Your task to perform on an android device: Go to display settings Image 0: 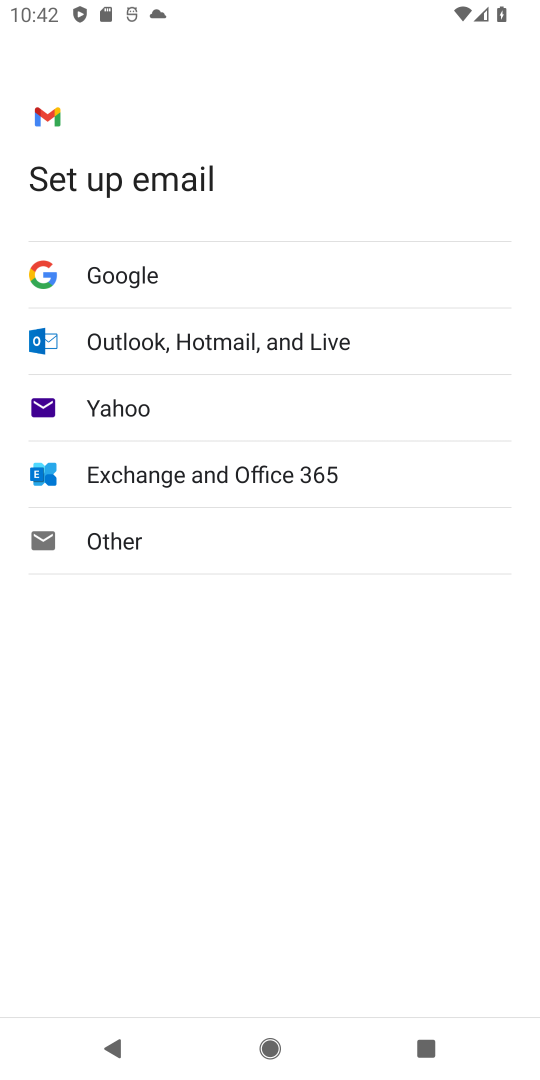
Step 0: press home button
Your task to perform on an android device: Go to display settings Image 1: 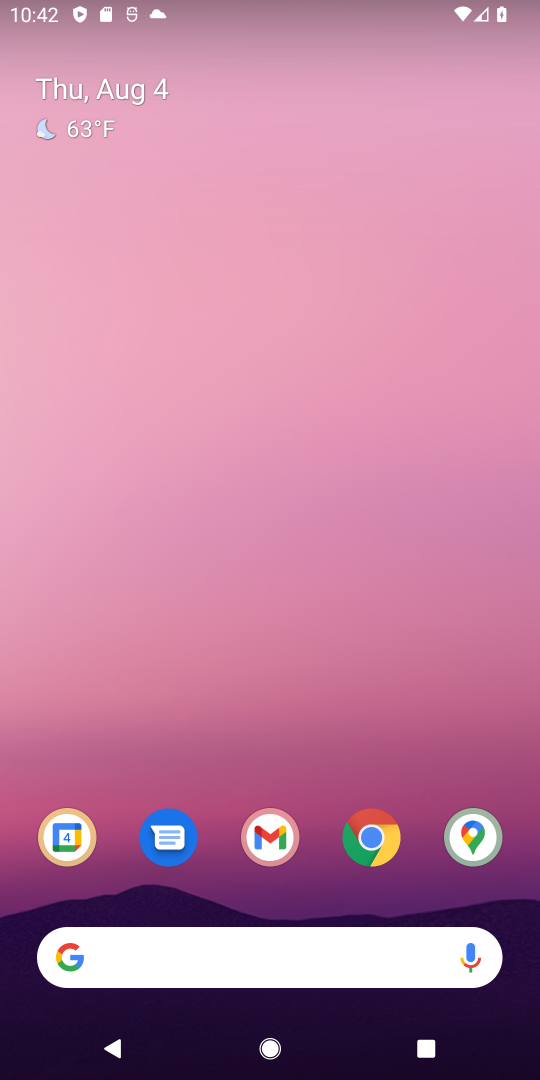
Step 1: drag from (324, 882) to (369, 60)
Your task to perform on an android device: Go to display settings Image 2: 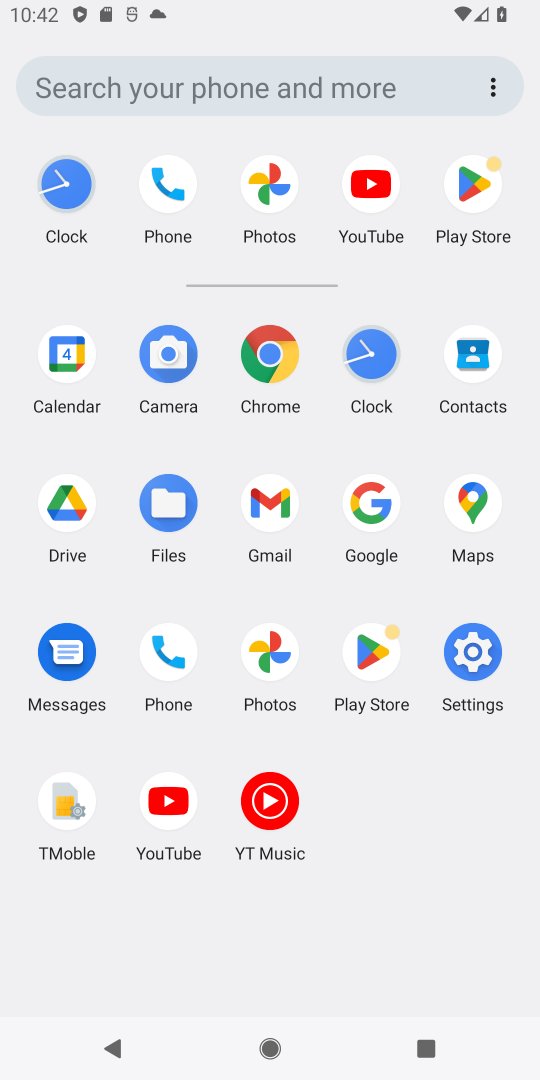
Step 2: click (465, 634)
Your task to perform on an android device: Go to display settings Image 3: 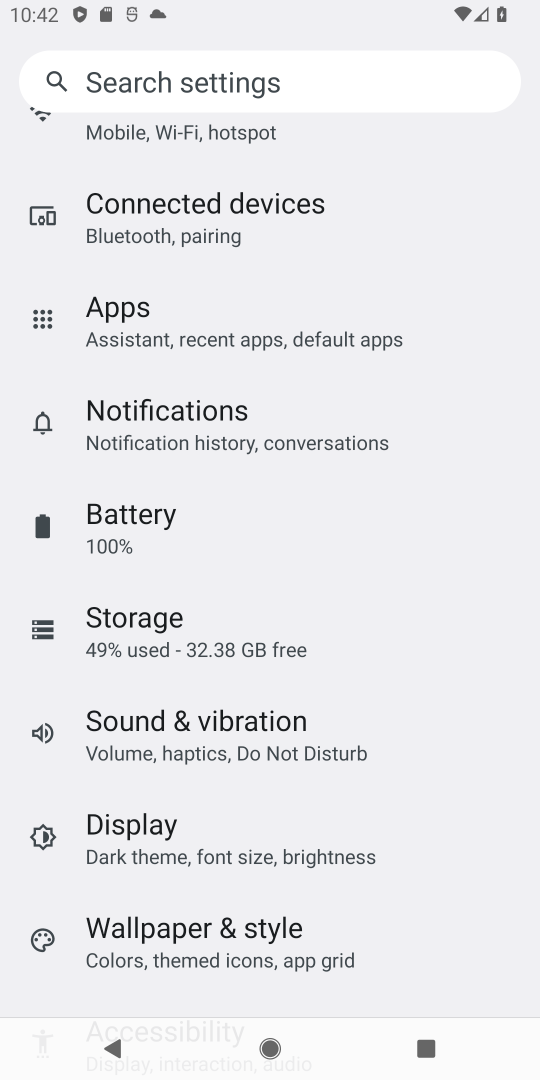
Step 3: click (202, 826)
Your task to perform on an android device: Go to display settings Image 4: 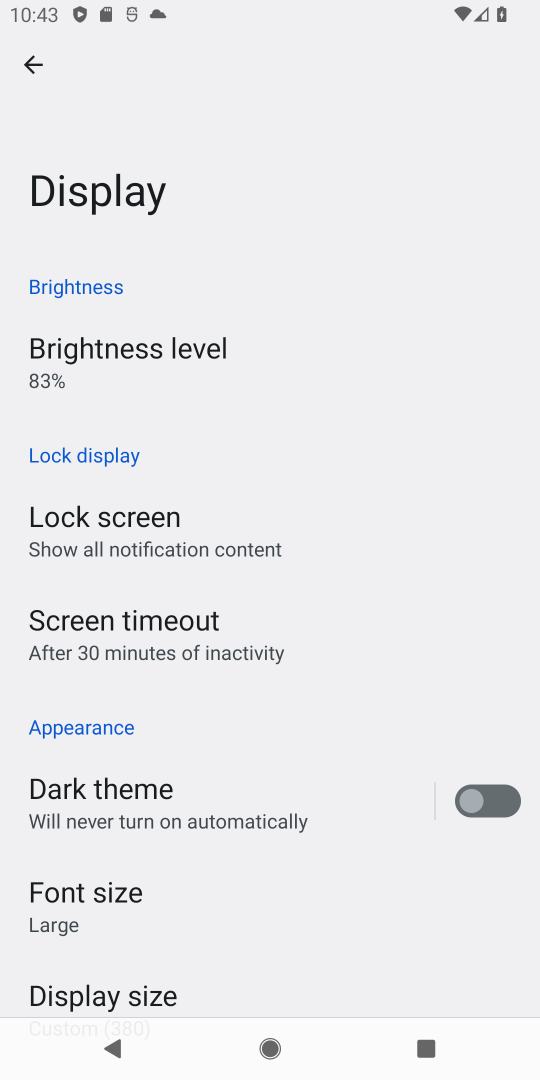
Step 4: task complete